Your task to perform on an android device: find which apps use the phone's location Image 0: 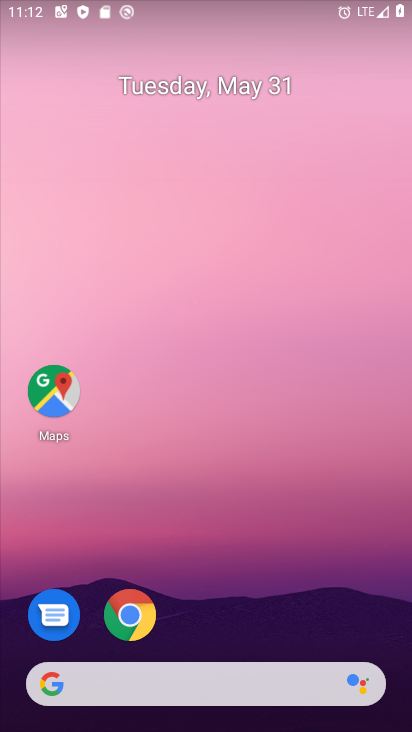
Step 0: drag from (276, 556) to (307, 19)
Your task to perform on an android device: find which apps use the phone's location Image 1: 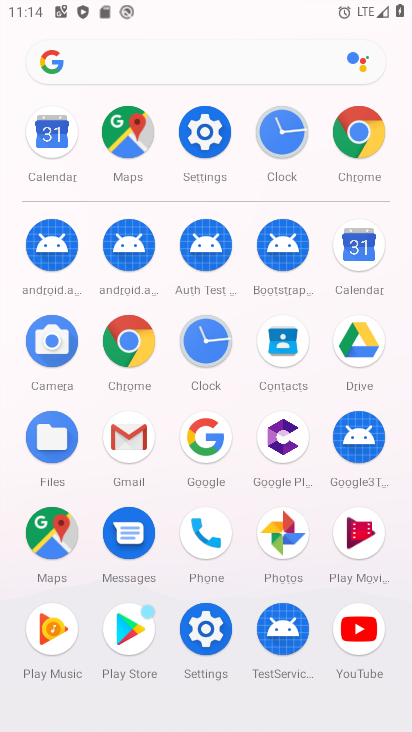
Step 1: click (211, 155)
Your task to perform on an android device: find which apps use the phone's location Image 2: 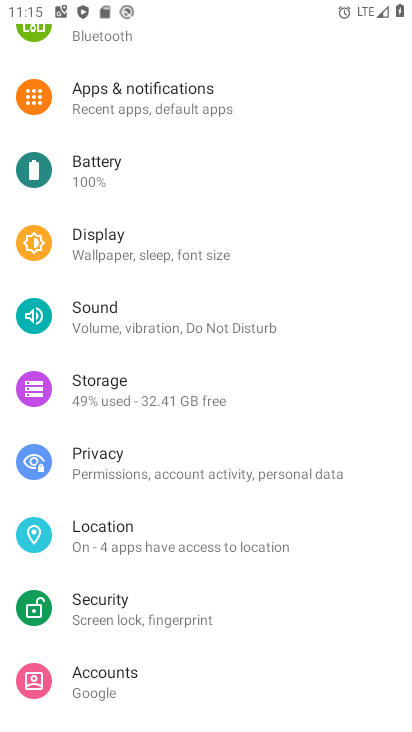
Step 2: click (131, 534)
Your task to perform on an android device: find which apps use the phone's location Image 3: 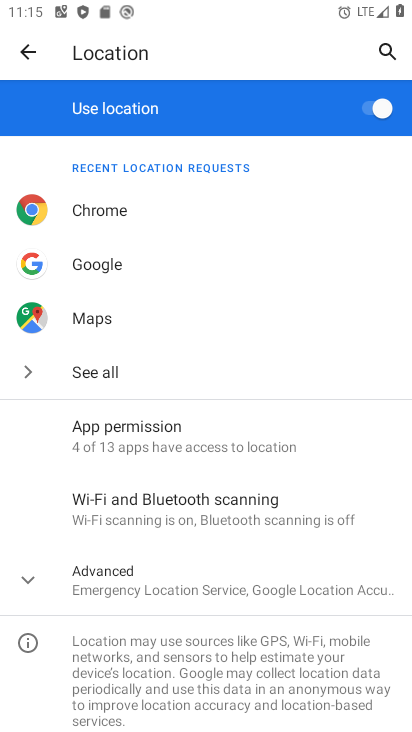
Step 3: click (181, 442)
Your task to perform on an android device: find which apps use the phone's location Image 4: 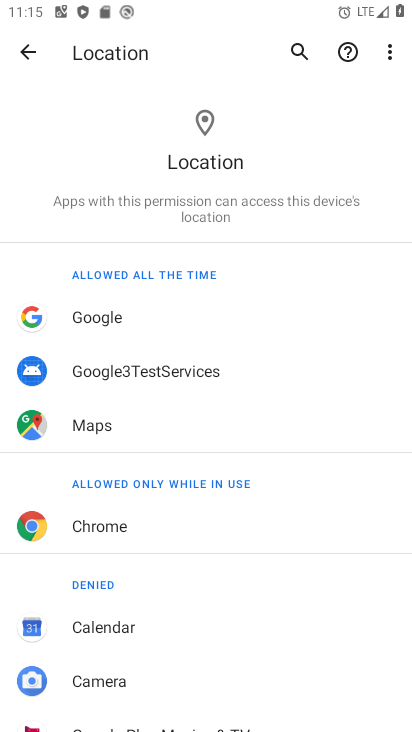
Step 4: task complete